Your task to perform on an android device: move an email to a new category in the gmail app Image 0: 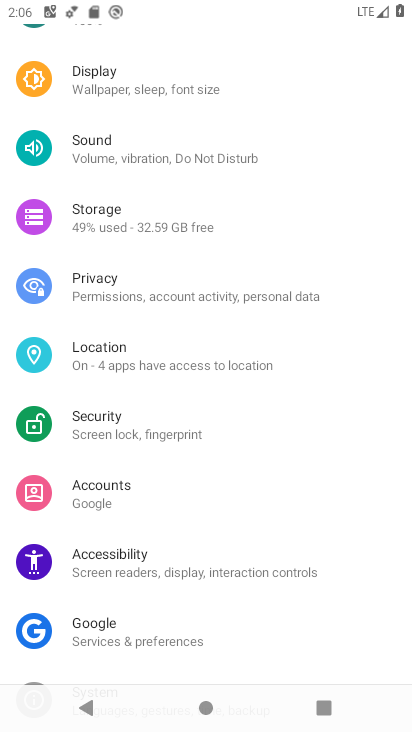
Step 0: press home button
Your task to perform on an android device: move an email to a new category in the gmail app Image 1: 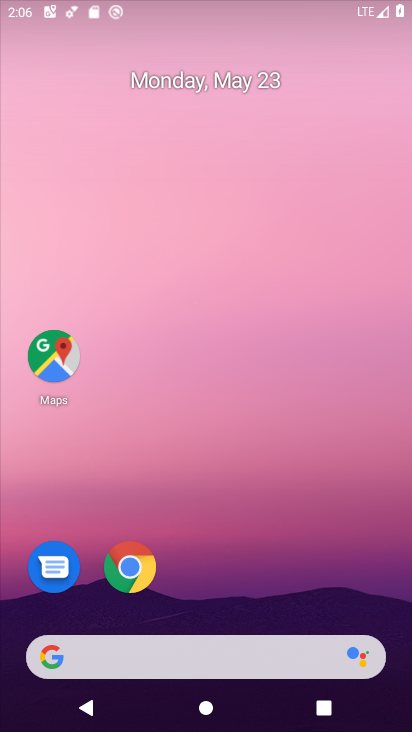
Step 1: drag from (282, 609) to (291, 200)
Your task to perform on an android device: move an email to a new category in the gmail app Image 2: 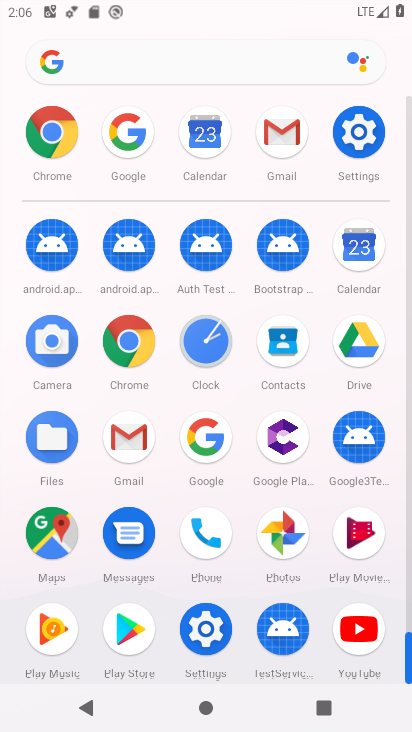
Step 2: click (134, 441)
Your task to perform on an android device: move an email to a new category in the gmail app Image 3: 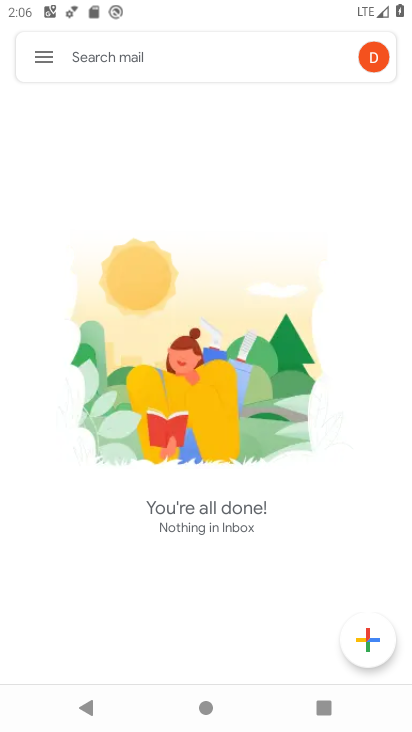
Step 3: click (36, 63)
Your task to perform on an android device: move an email to a new category in the gmail app Image 4: 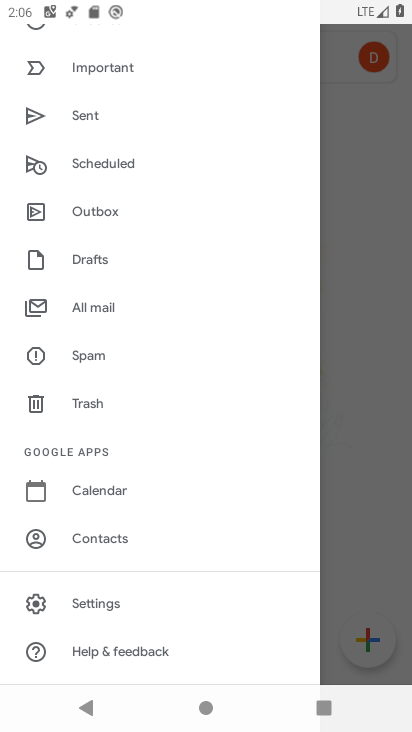
Step 4: click (143, 300)
Your task to perform on an android device: move an email to a new category in the gmail app Image 5: 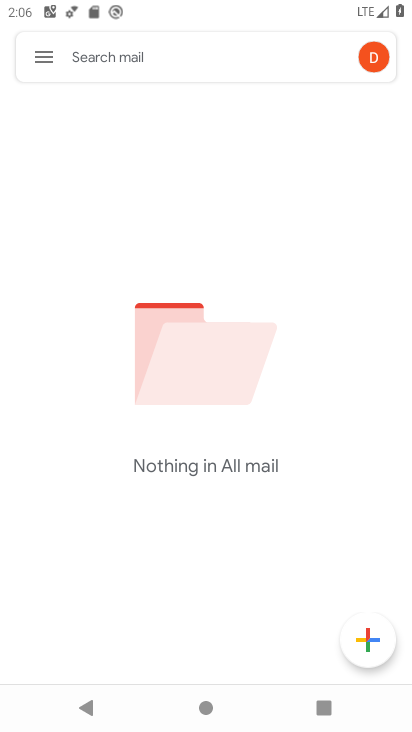
Step 5: task complete